Your task to perform on an android device: Go to notification settings Image 0: 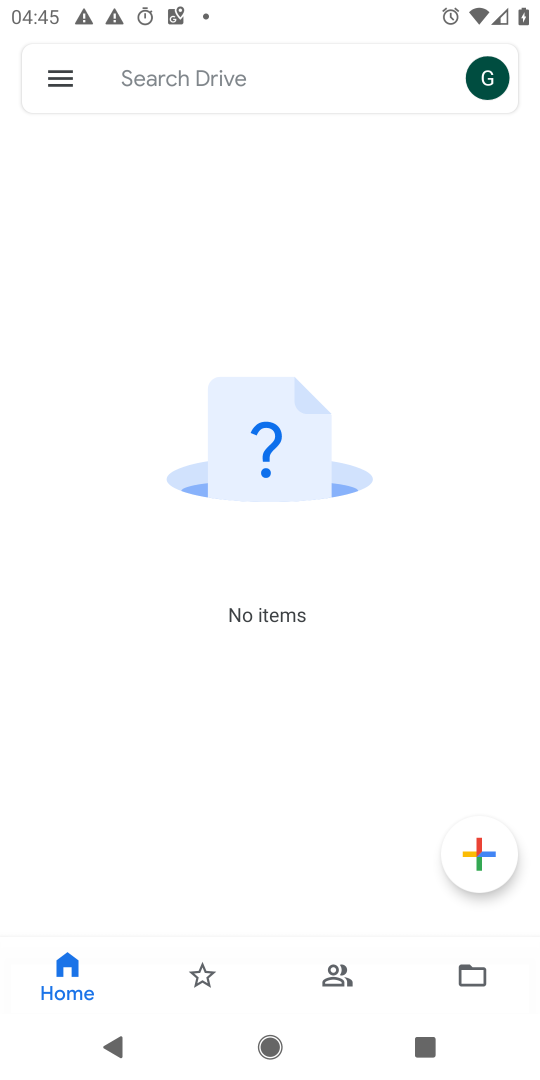
Step 0: press home button
Your task to perform on an android device: Go to notification settings Image 1: 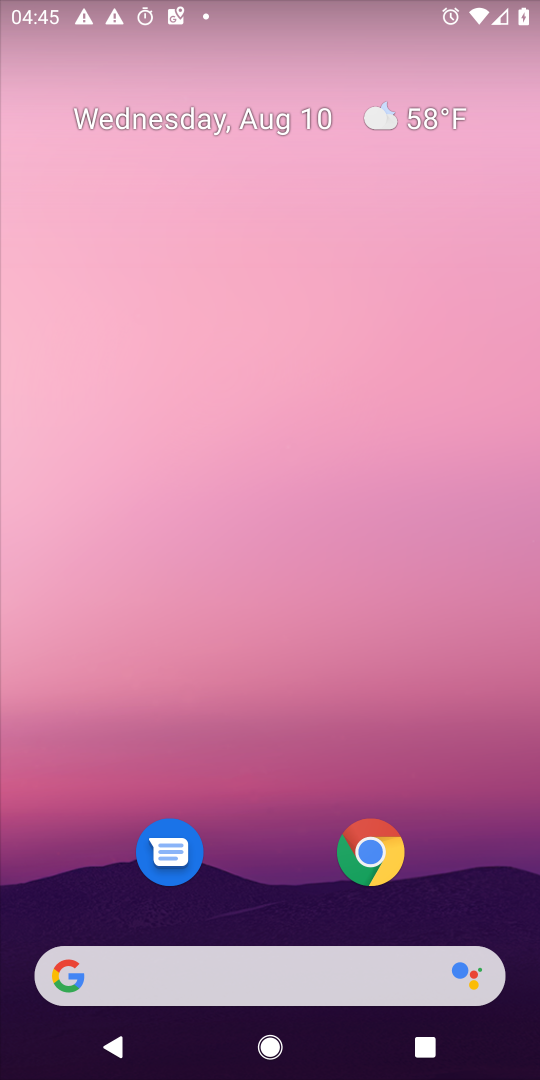
Step 1: drag from (369, 761) to (204, 231)
Your task to perform on an android device: Go to notification settings Image 2: 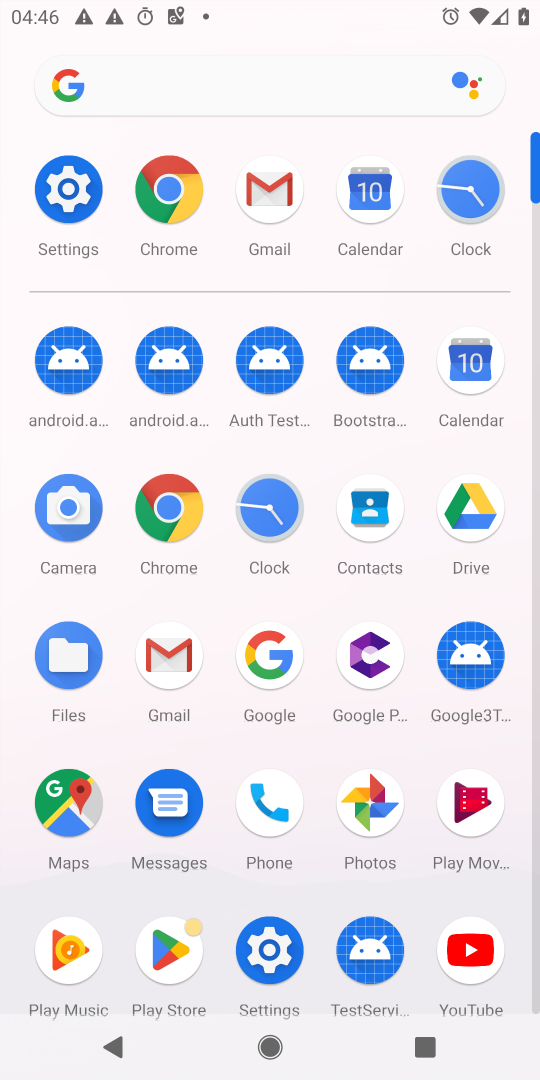
Step 2: click (279, 968)
Your task to perform on an android device: Go to notification settings Image 3: 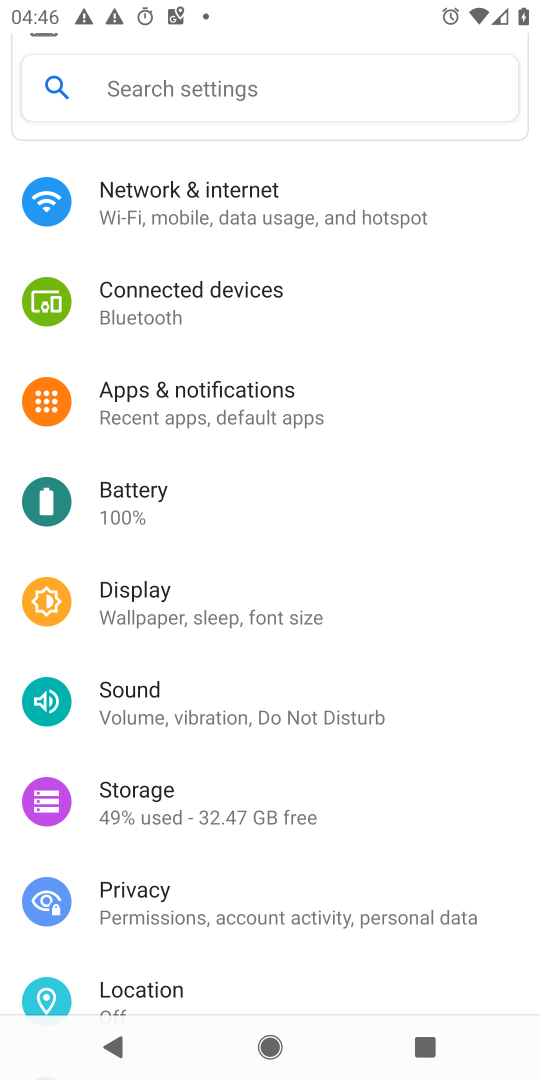
Step 3: click (194, 399)
Your task to perform on an android device: Go to notification settings Image 4: 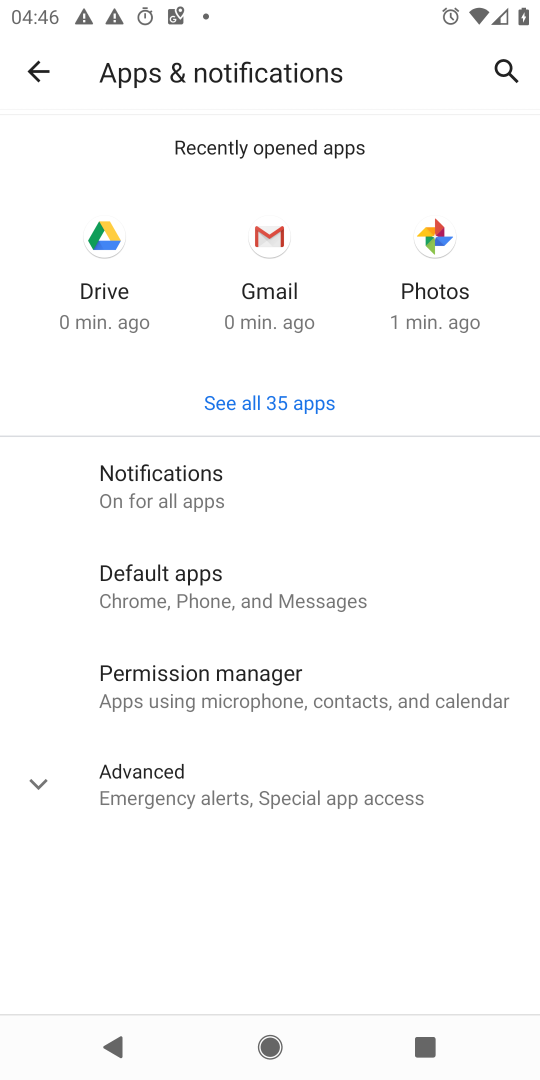
Step 4: click (201, 489)
Your task to perform on an android device: Go to notification settings Image 5: 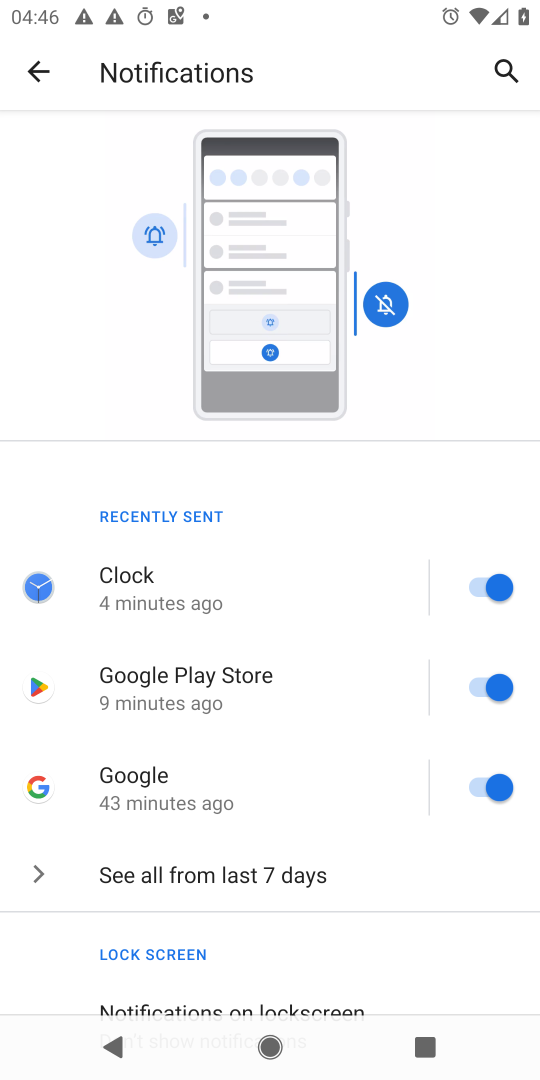
Step 5: task complete